Your task to perform on an android device: What time is it in New York? Image 0: 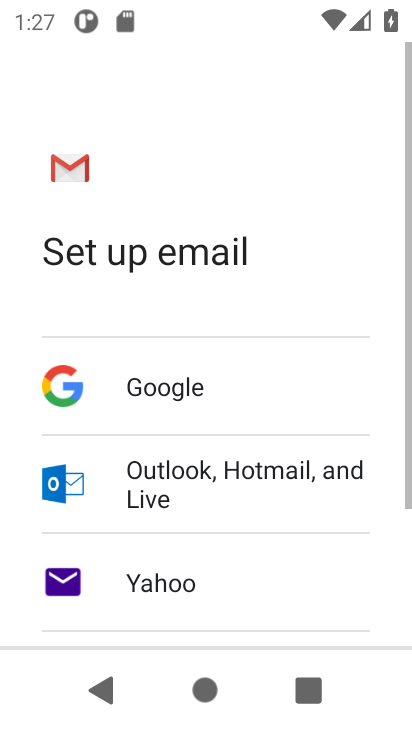
Step 0: press home button
Your task to perform on an android device: What time is it in New York? Image 1: 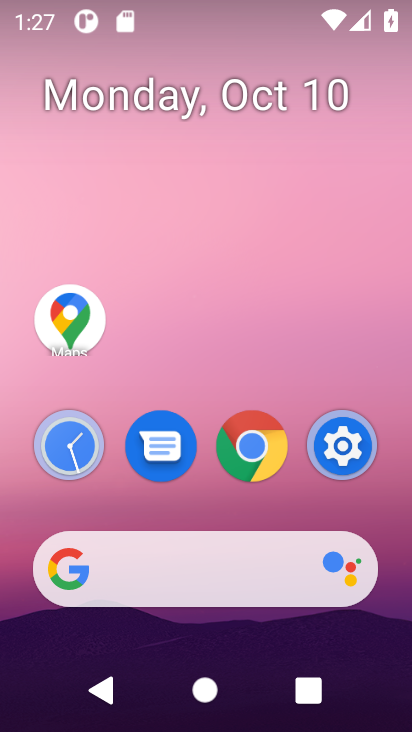
Step 1: click (174, 574)
Your task to perform on an android device: What time is it in New York? Image 2: 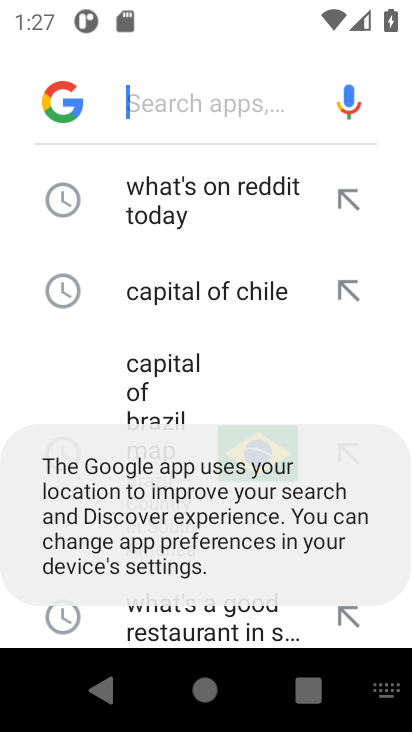
Step 2: type "What time is it in New York"
Your task to perform on an android device: What time is it in New York? Image 3: 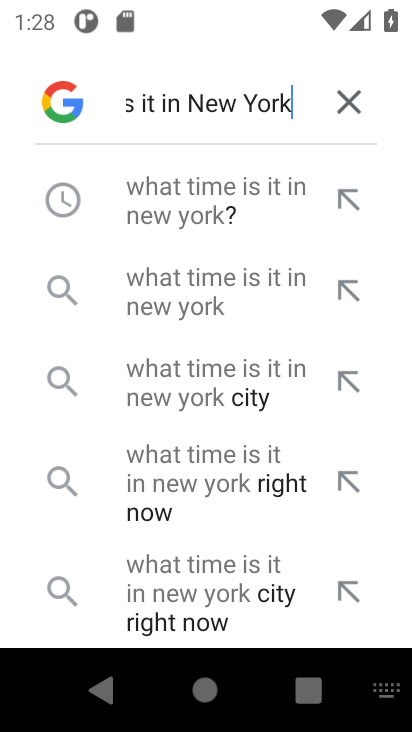
Step 3: click (233, 189)
Your task to perform on an android device: What time is it in New York? Image 4: 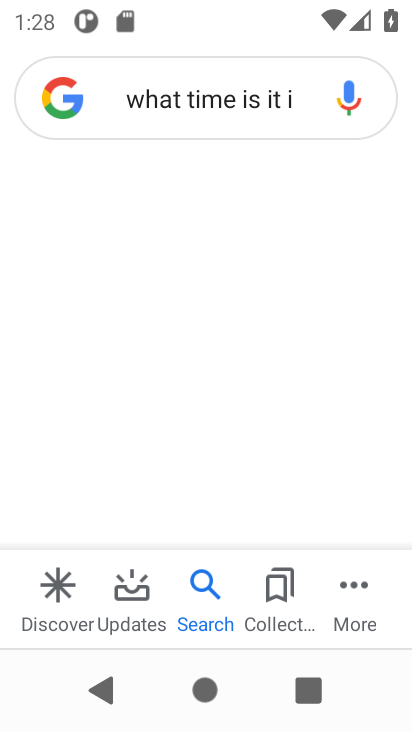
Step 4: task complete